Your task to perform on an android device: turn off picture-in-picture Image 0: 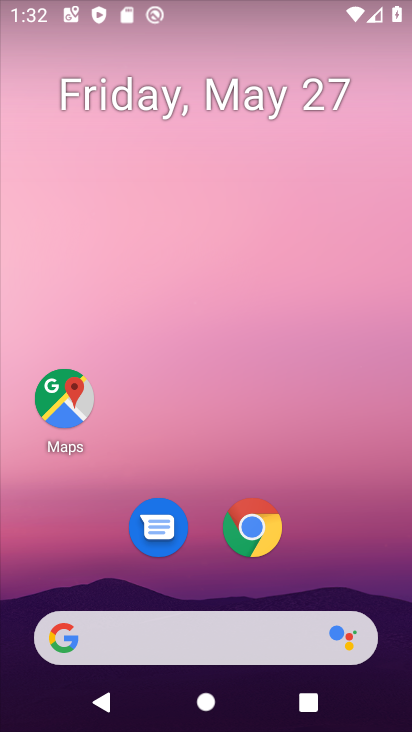
Step 0: drag from (199, 422) to (200, 134)
Your task to perform on an android device: turn off picture-in-picture Image 1: 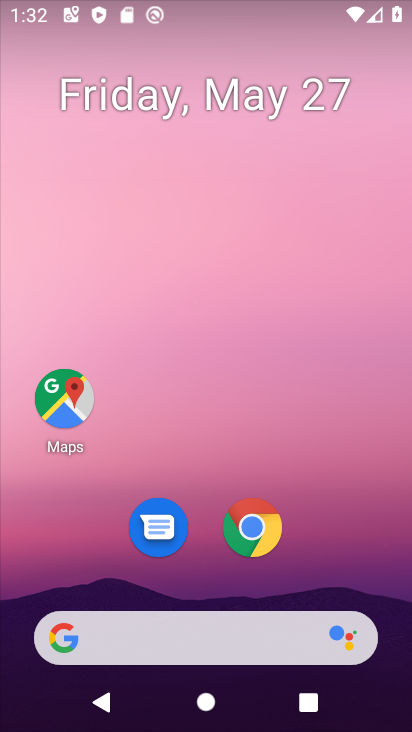
Step 1: drag from (211, 598) to (277, 93)
Your task to perform on an android device: turn off picture-in-picture Image 2: 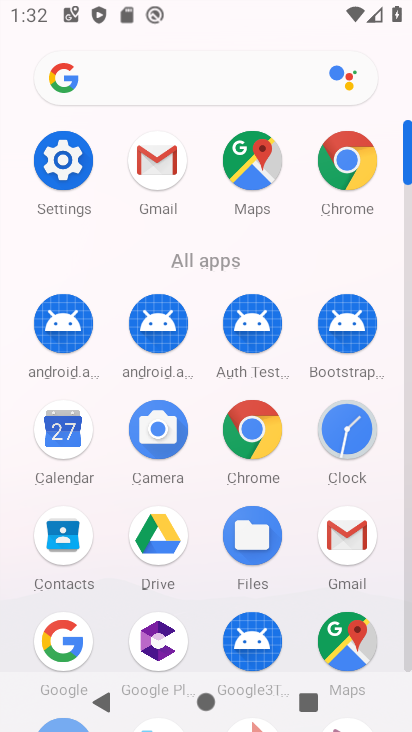
Step 2: click (66, 162)
Your task to perform on an android device: turn off picture-in-picture Image 3: 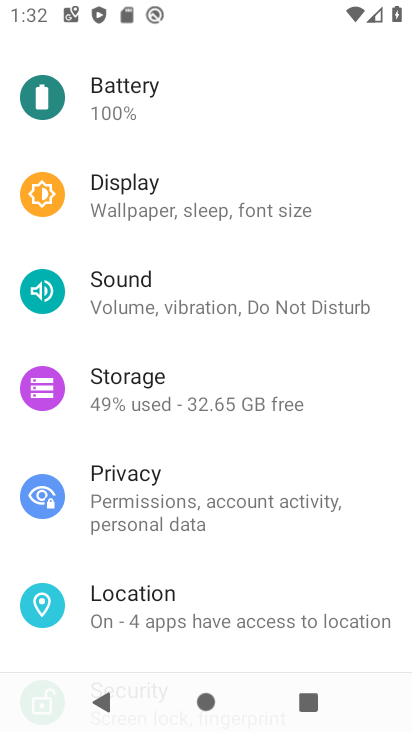
Step 3: drag from (235, 566) to (274, 177)
Your task to perform on an android device: turn off picture-in-picture Image 4: 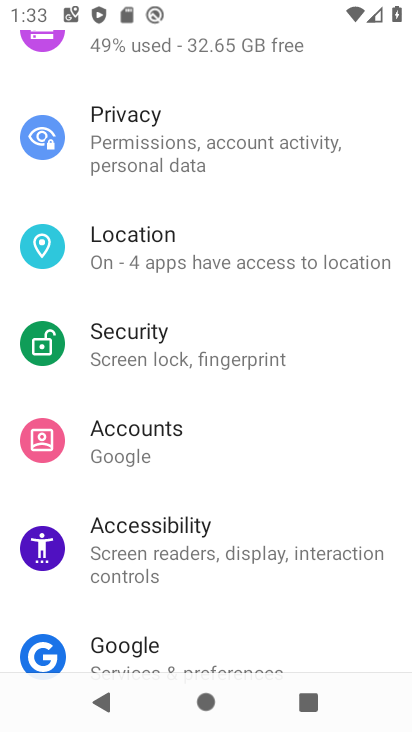
Step 4: drag from (177, 498) to (221, 84)
Your task to perform on an android device: turn off picture-in-picture Image 5: 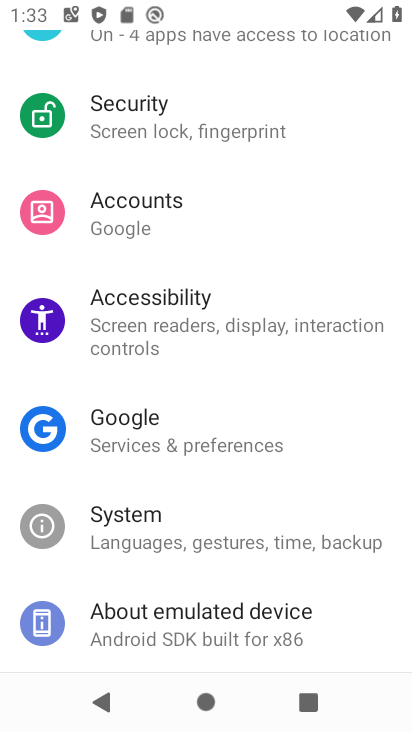
Step 5: drag from (224, 240) to (160, 579)
Your task to perform on an android device: turn off picture-in-picture Image 6: 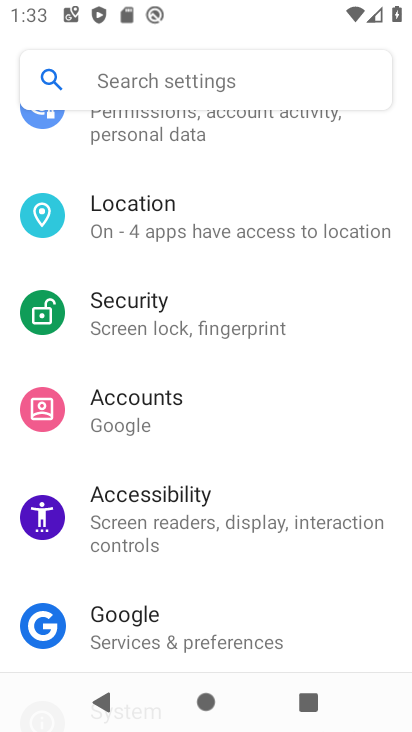
Step 6: drag from (204, 216) to (141, 565)
Your task to perform on an android device: turn off picture-in-picture Image 7: 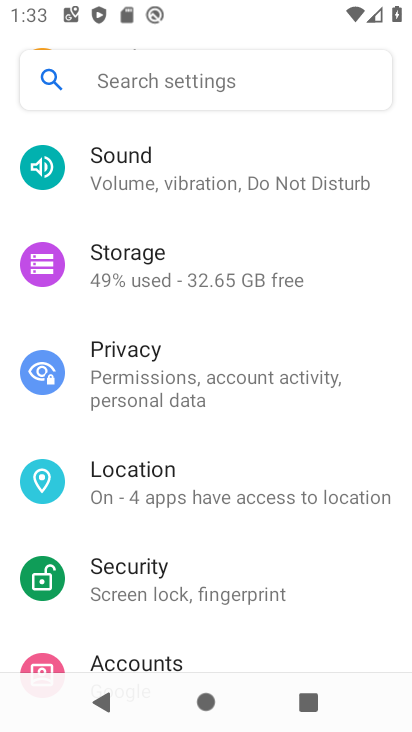
Step 7: drag from (226, 146) to (180, 546)
Your task to perform on an android device: turn off picture-in-picture Image 8: 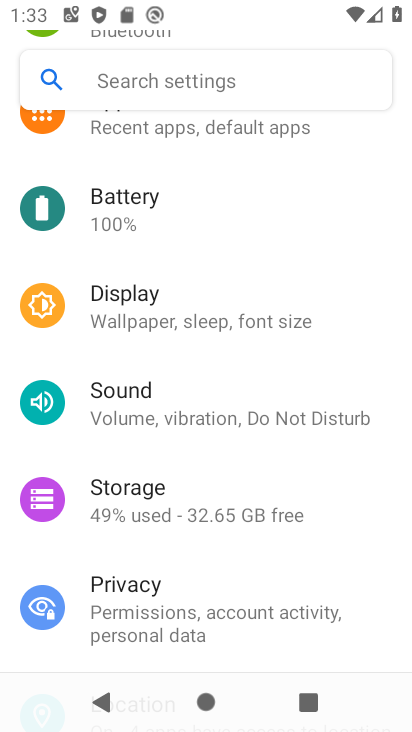
Step 8: drag from (200, 201) to (156, 574)
Your task to perform on an android device: turn off picture-in-picture Image 9: 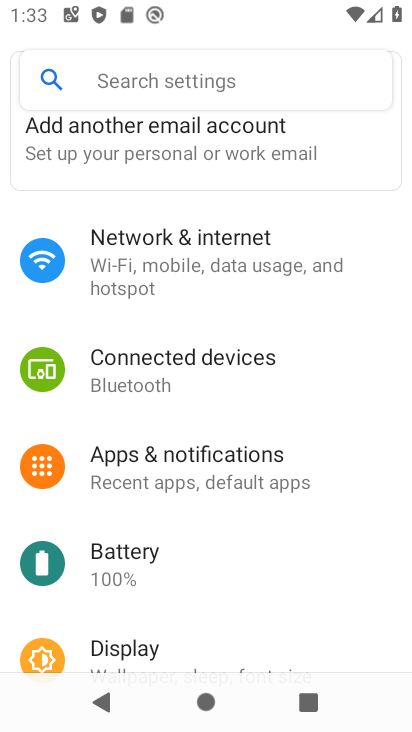
Step 9: click (169, 471)
Your task to perform on an android device: turn off picture-in-picture Image 10: 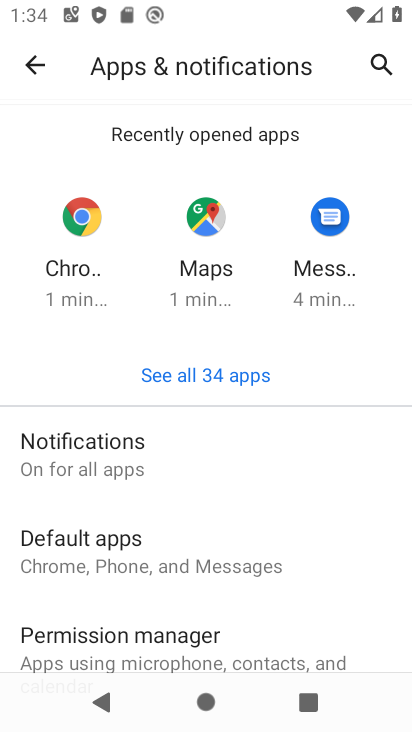
Step 10: drag from (176, 232) to (206, 158)
Your task to perform on an android device: turn off picture-in-picture Image 11: 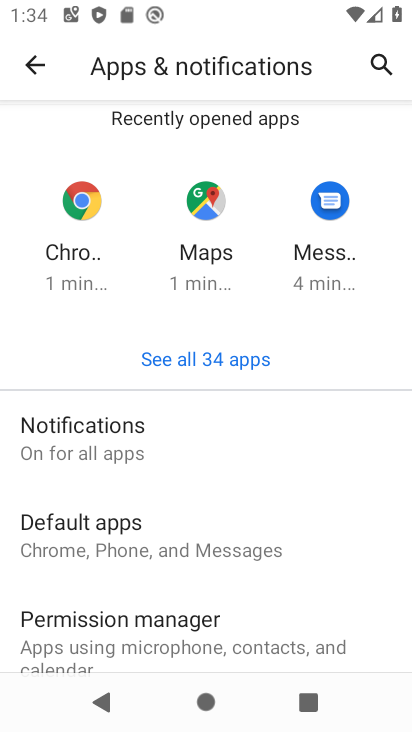
Step 11: drag from (96, 566) to (246, 132)
Your task to perform on an android device: turn off picture-in-picture Image 12: 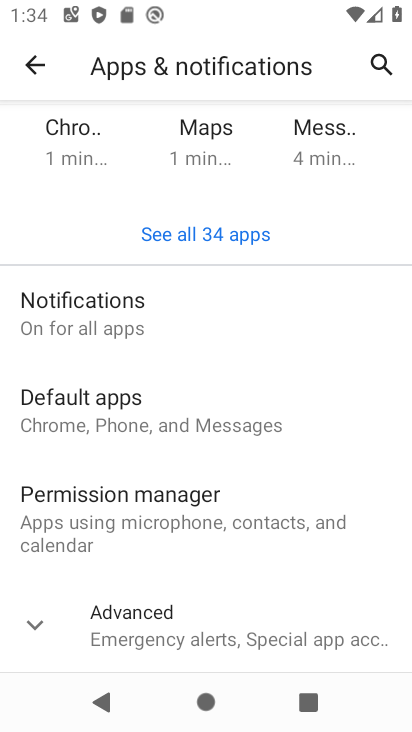
Step 12: drag from (190, 625) to (273, 260)
Your task to perform on an android device: turn off picture-in-picture Image 13: 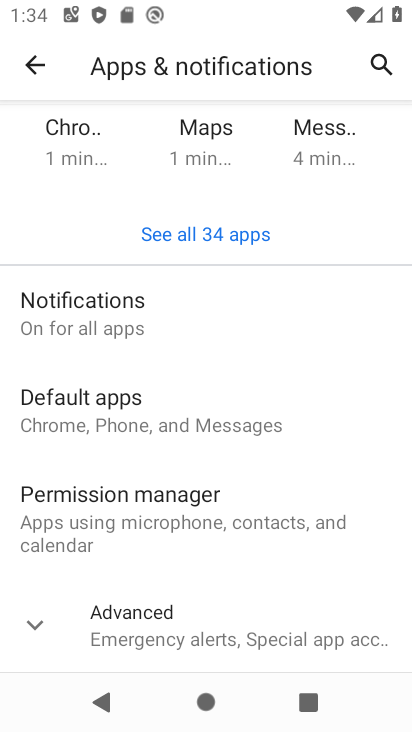
Step 13: click (147, 626)
Your task to perform on an android device: turn off picture-in-picture Image 14: 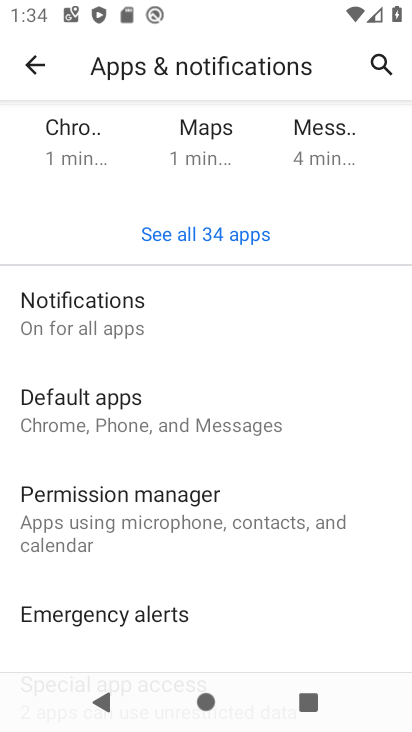
Step 14: drag from (213, 571) to (291, 205)
Your task to perform on an android device: turn off picture-in-picture Image 15: 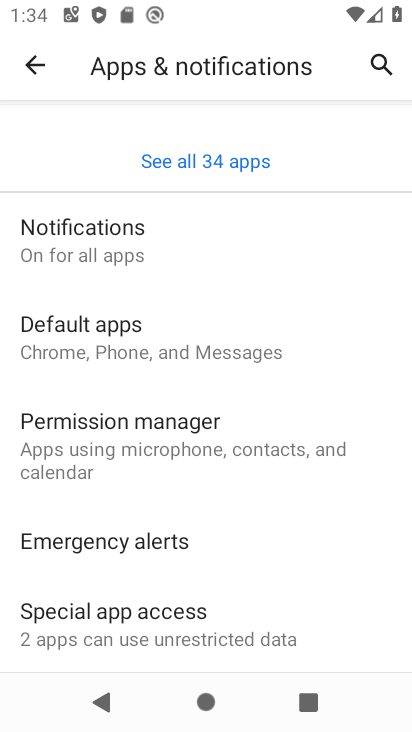
Step 15: click (132, 613)
Your task to perform on an android device: turn off picture-in-picture Image 16: 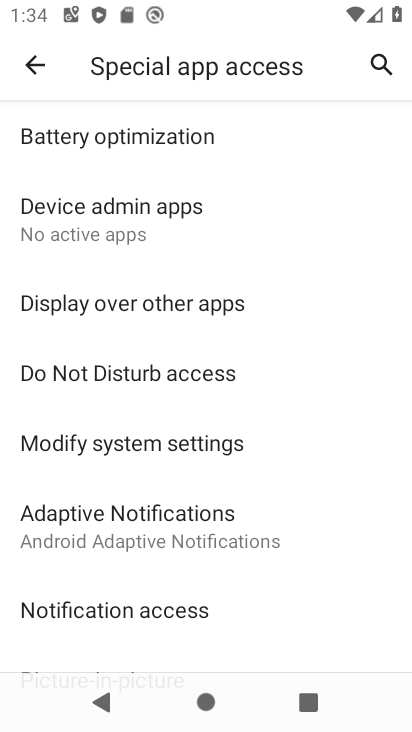
Step 16: drag from (261, 592) to (357, 183)
Your task to perform on an android device: turn off picture-in-picture Image 17: 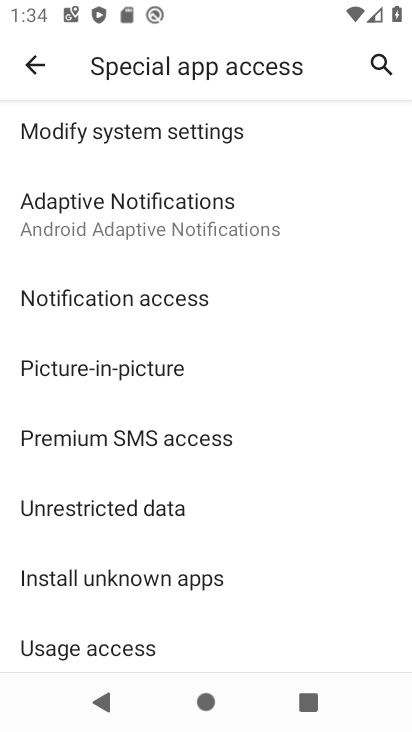
Step 17: click (138, 365)
Your task to perform on an android device: turn off picture-in-picture Image 18: 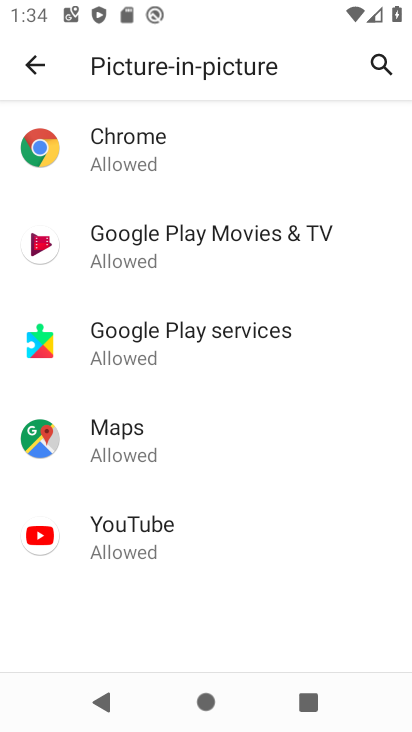
Step 18: task complete